Your task to perform on an android device: refresh tabs in the chrome app Image 0: 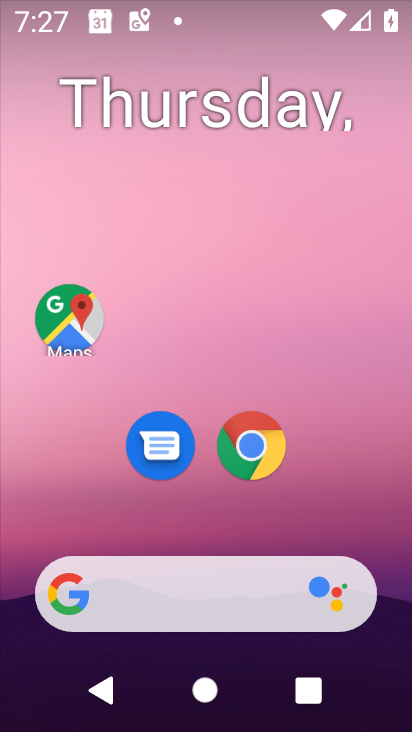
Step 0: drag from (388, 647) to (410, 333)
Your task to perform on an android device: refresh tabs in the chrome app Image 1: 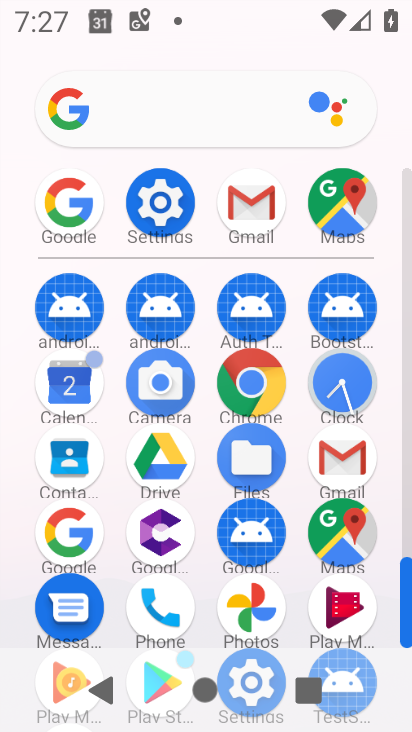
Step 1: click (273, 397)
Your task to perform on an android device: refresh tabs in the chrome app Image 2: 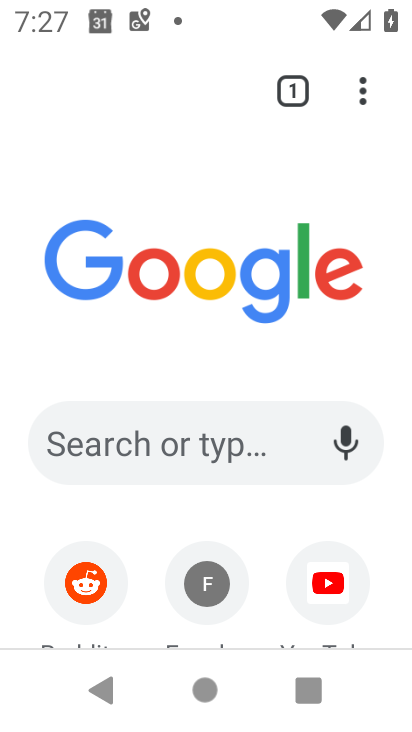
Step 2: click (362, 87)
Your task to perform on an android device: refresh tabs in the chrome app Image 3: 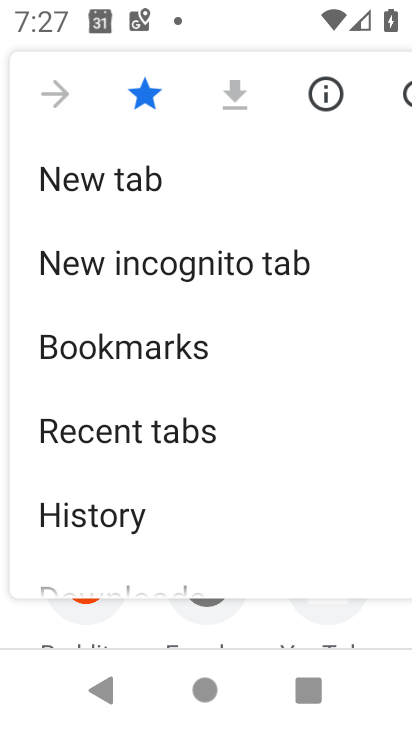
Step 3: drag from (411, 95) to (352, 171)
Your task to perform on an android device: refresh tabs in the chrome app Image 4: 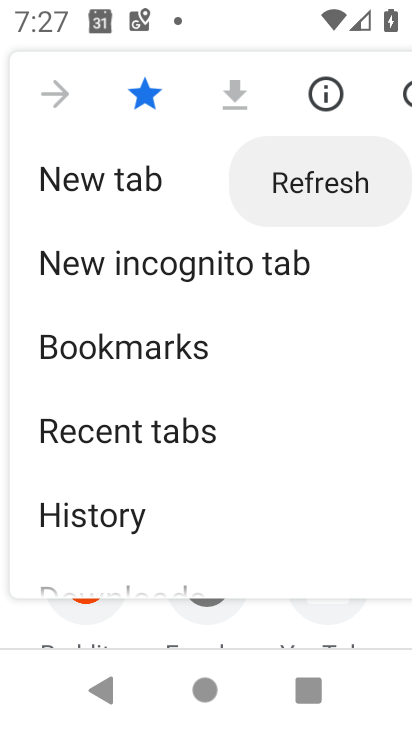
Step 4: drag from (396, 105) to (132, 109)
Your task to perform on an android device: refresh tabs in the chrome app Image 5: 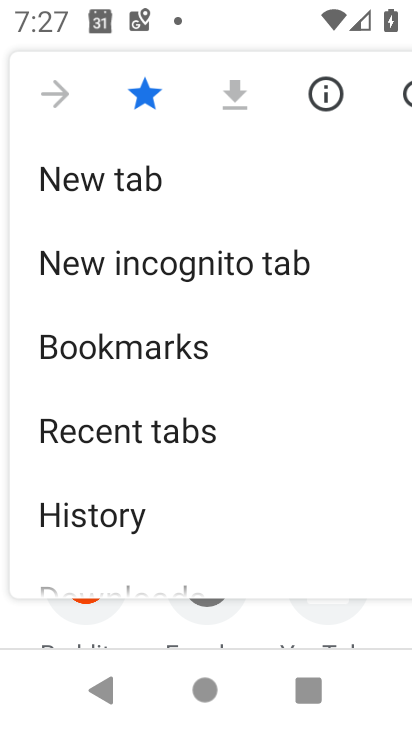
Step 5: click (403, 92)
Your task to perform on an android device: refresh tabs in the chrome app Image 6: 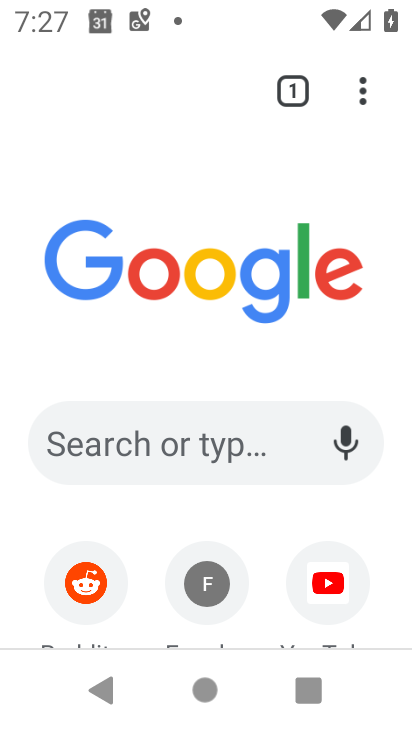
Step 6: task complete